Your task to perform on an android device: stop showing notifications on the lock screen Image 0: 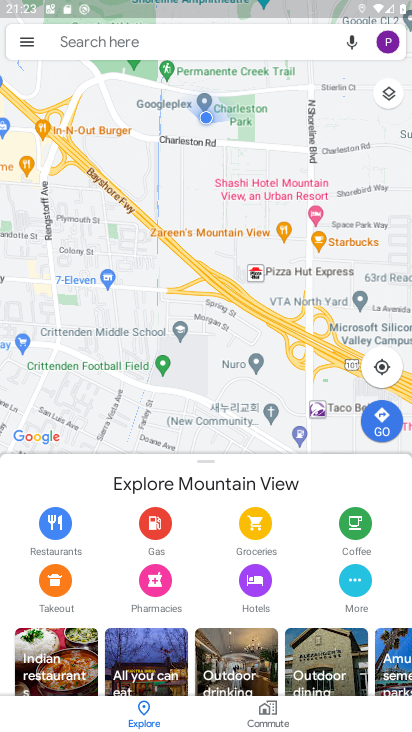
Step 0: task impossible